Your task to perform on an android device: Open ESPN.com Image 0: 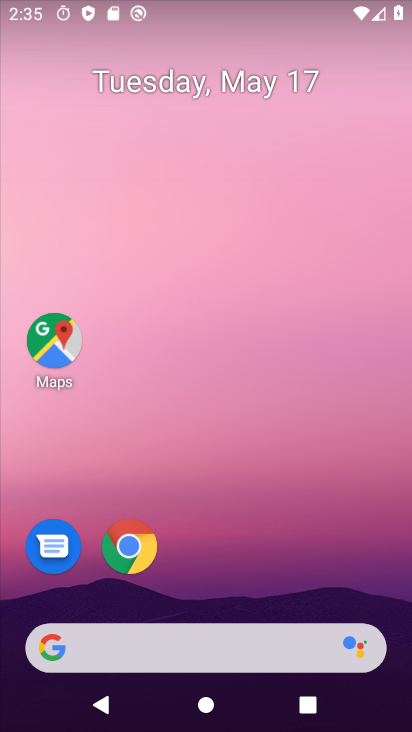
Step 0: drag from (247, 612) to (242, 130)
Your task to perform on an android device: Open ESPN.com Image 1: 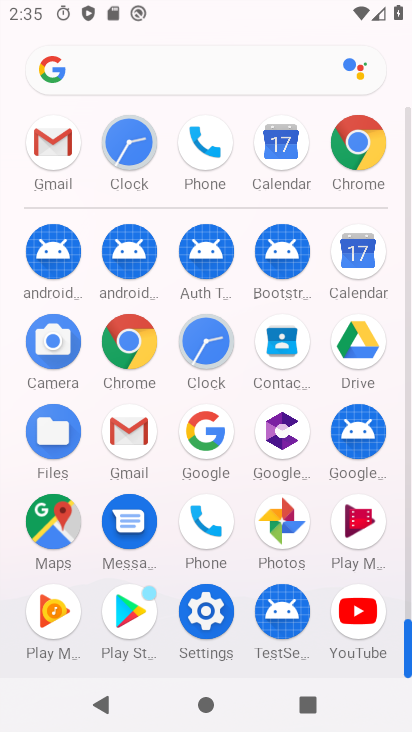
Step 1: click (356, 168)
Your task to perform on an android device: Open ESPN.com Image 2: 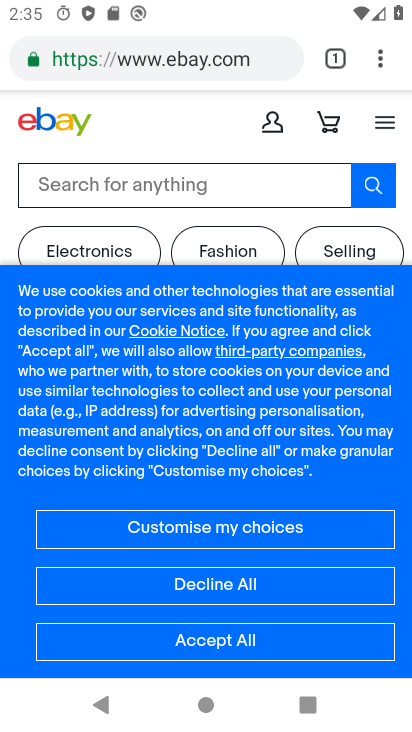
Step 2: click (221, 62)
Your task to perform on an android device: Open ESPN.com Image 3: 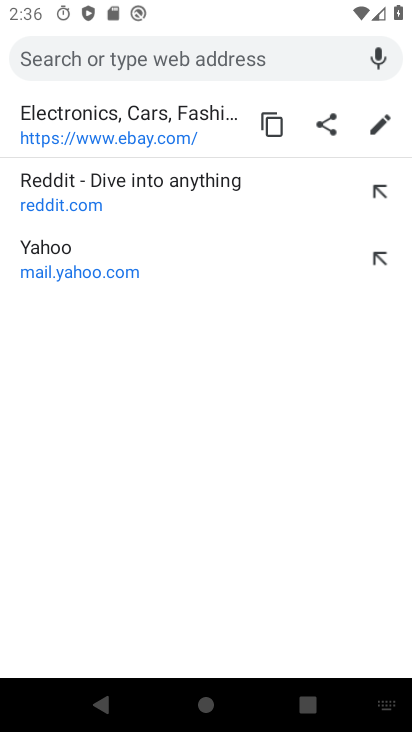
Step 3: type "espn"
Your task to perform on an android device: Open ESPN.com Image 4: 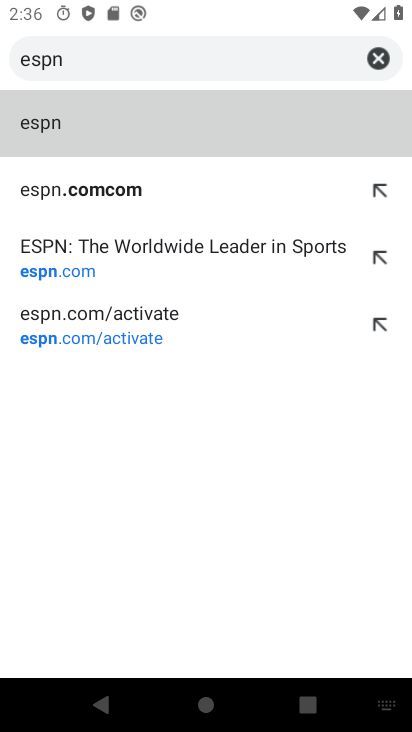
Step 4: click (142, 264)
Your task to perform on an android device: Open ESPN.com Image 5: 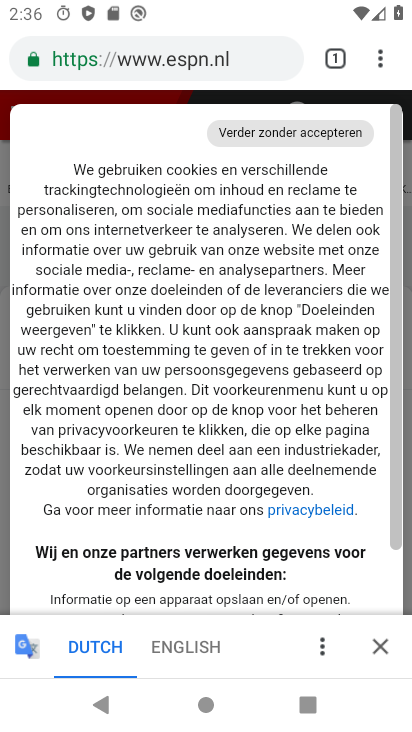
Step 5: task complete